Your task to perform on an android device: delete a single message in the gmail app Image 0: 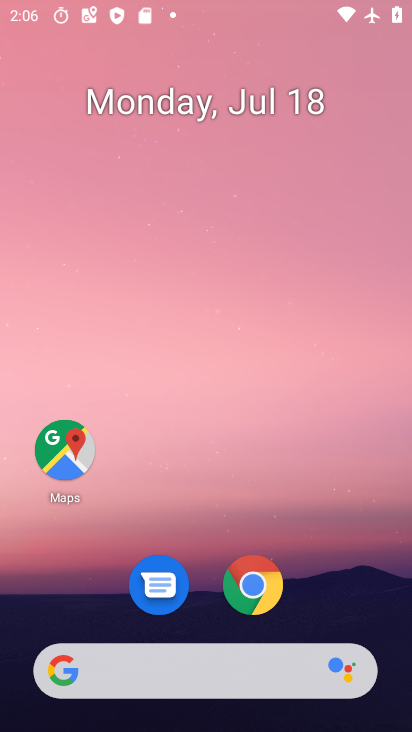
Step 0: press home button
Your task to perform on an android device: delete a single message in the gmail app Image 1: 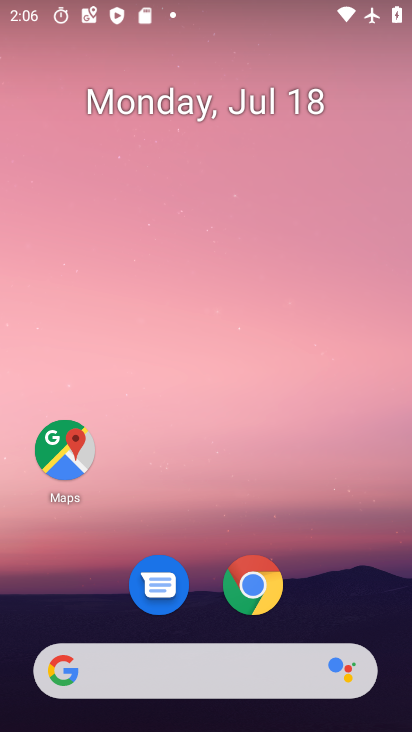
Step 1: drag from (154, 688) to (341, 35)
Your task to perform on an android device: delete a single message in the gmail app Image 2: 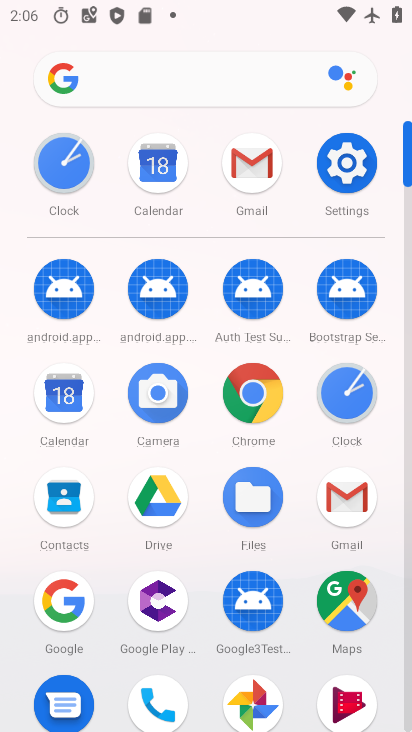
Step 2: click (257, 178)
Your task to perform on an android device: delete a single message in the gmail app Image 3: 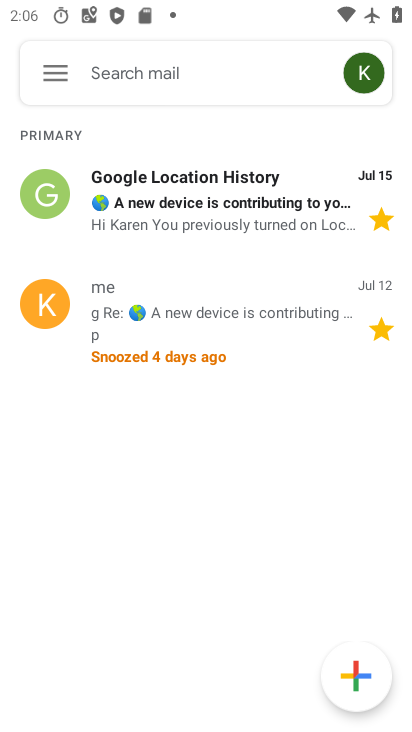
Step 3: click (55, 199)
Your task to perform on an android device: delete a single message in the gmail app Image 4: 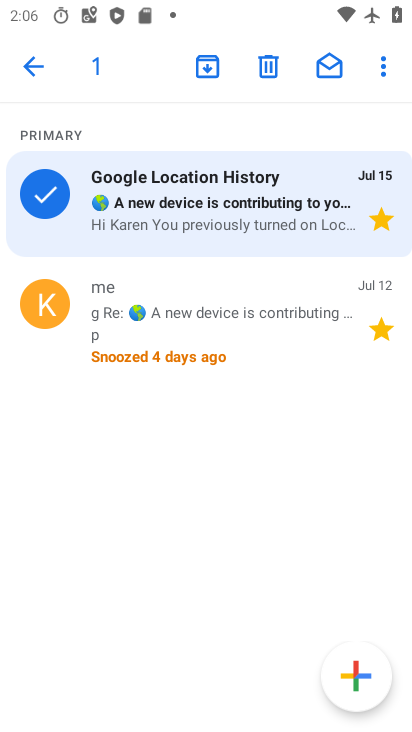
Step 4: click (266, 65)
Your task to perform on an android device: delete a single message in the gmail app Image 5: 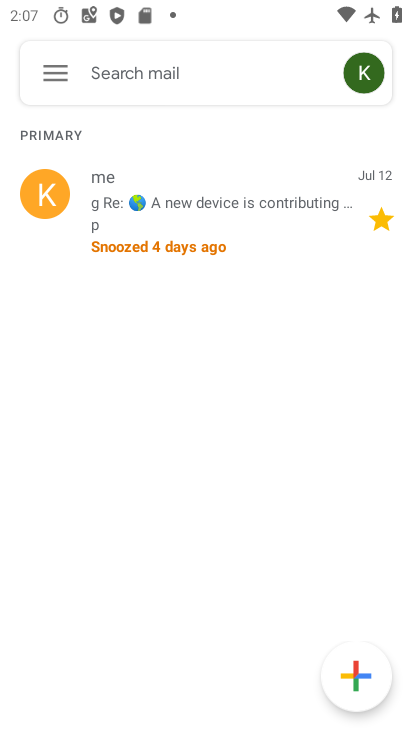
Step 5: task complete